Your task to perform on an android device: uninstall "Chime – Mobile Banking" Image 0: 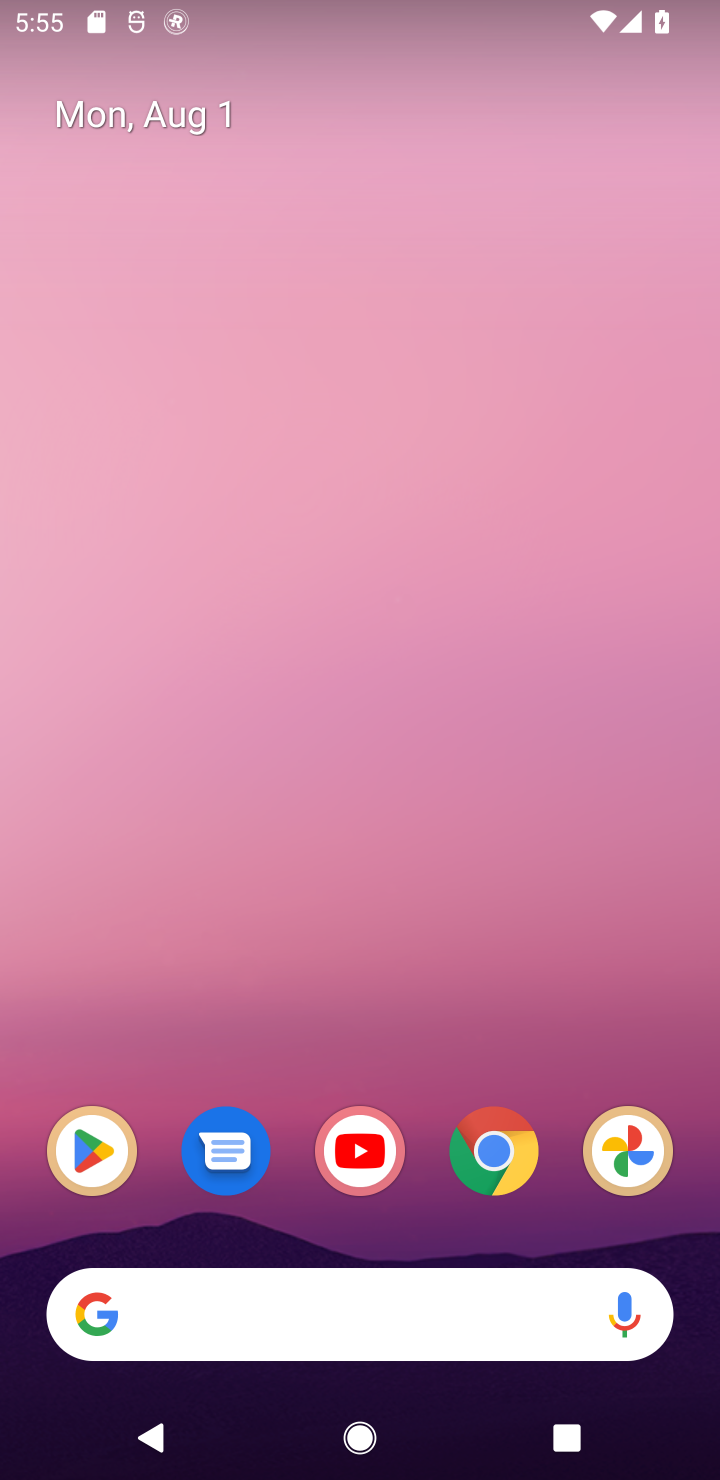
Step 0: click (100, 1167)
Your task to perform on an android device: uninstall "Chime – Mobile Banking" Image 1: 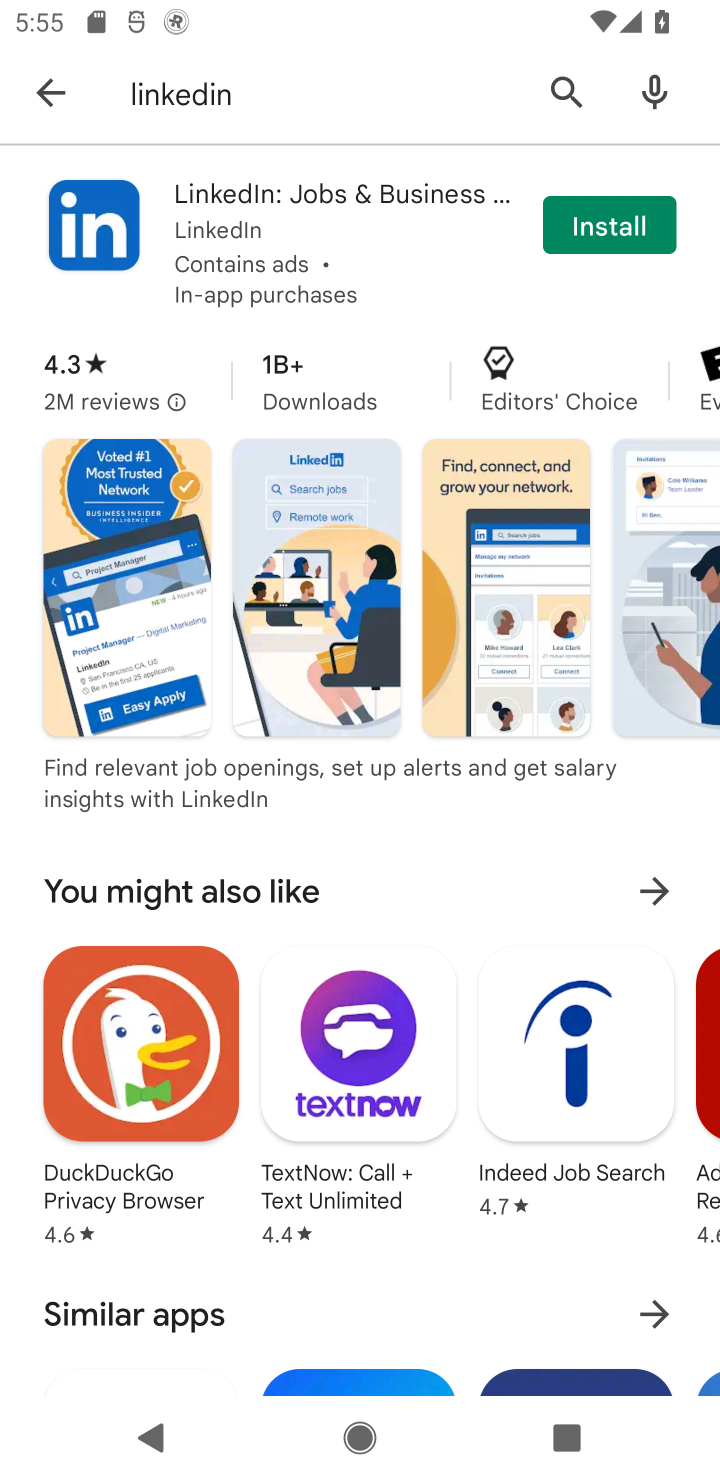
Step 1: click (576, 69)
Your task to perform on an android device: uninstall "Chime – Mobile Banking" Image 2: 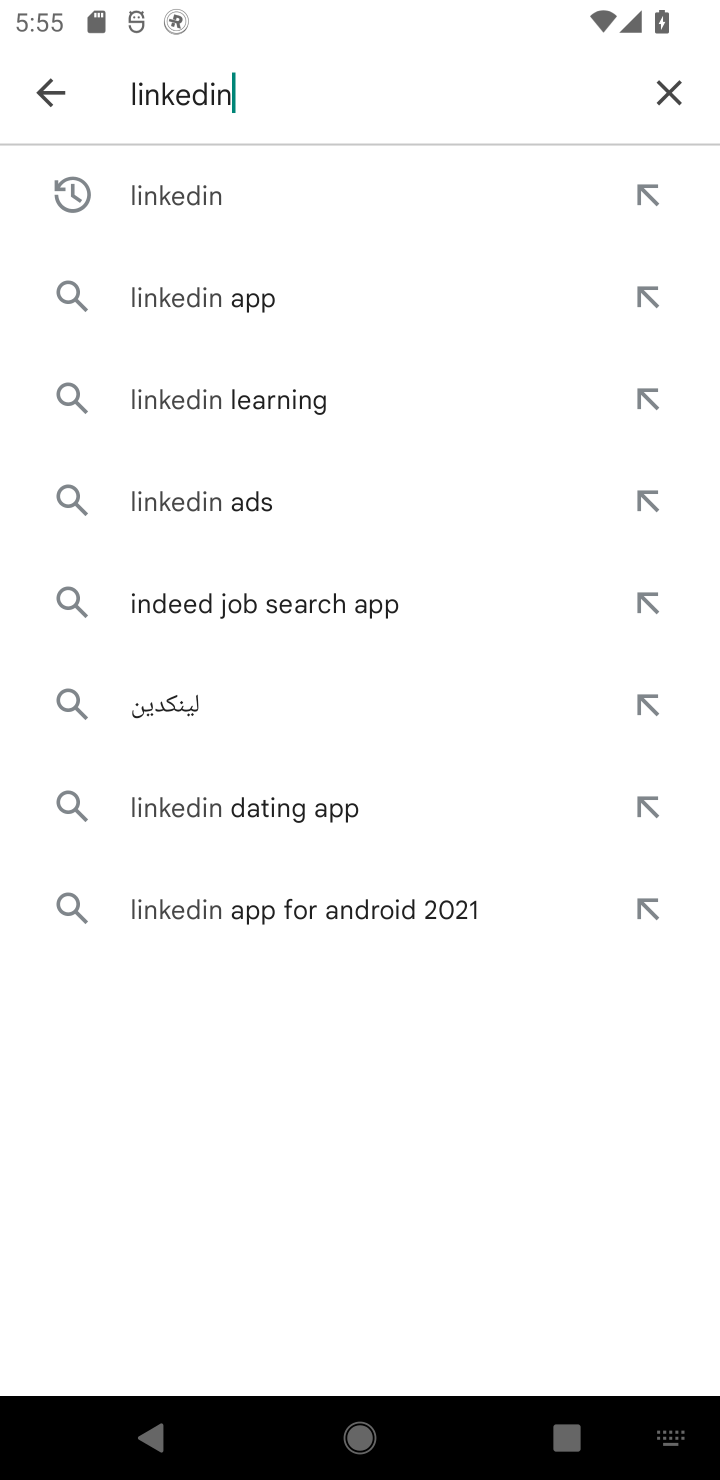
Step 2: click (656, 96)
Your task to perform on an android device: uninstall "Chime – Mobile Banking" Image 3: 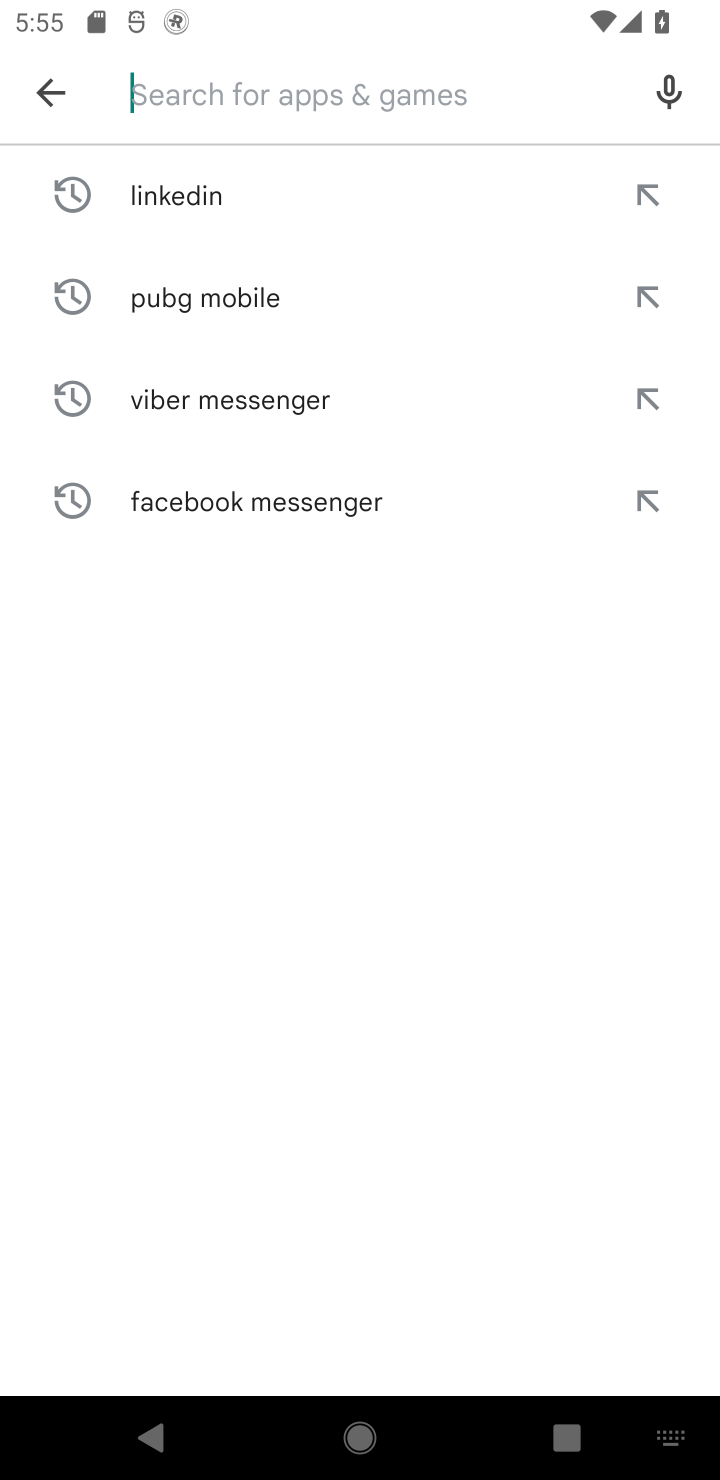
Step 3: type "Chime  Mobile Banking"
Your task to perform on an android device: uninstall "Chime – Mobile Banking" Image 4: 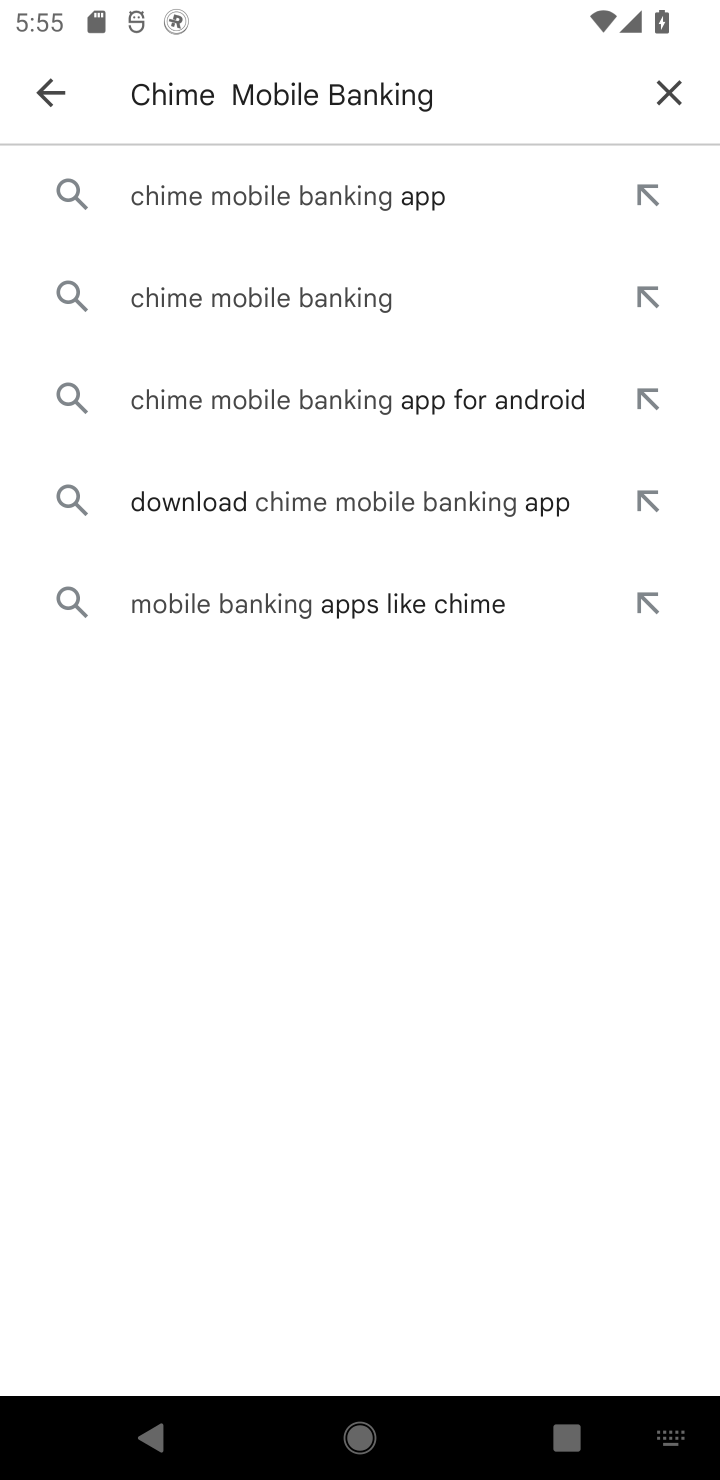
Step 4: click (311, 193)
Your task to perform on an android device: uninstall "Chime – Mobile Banking" Image 5: 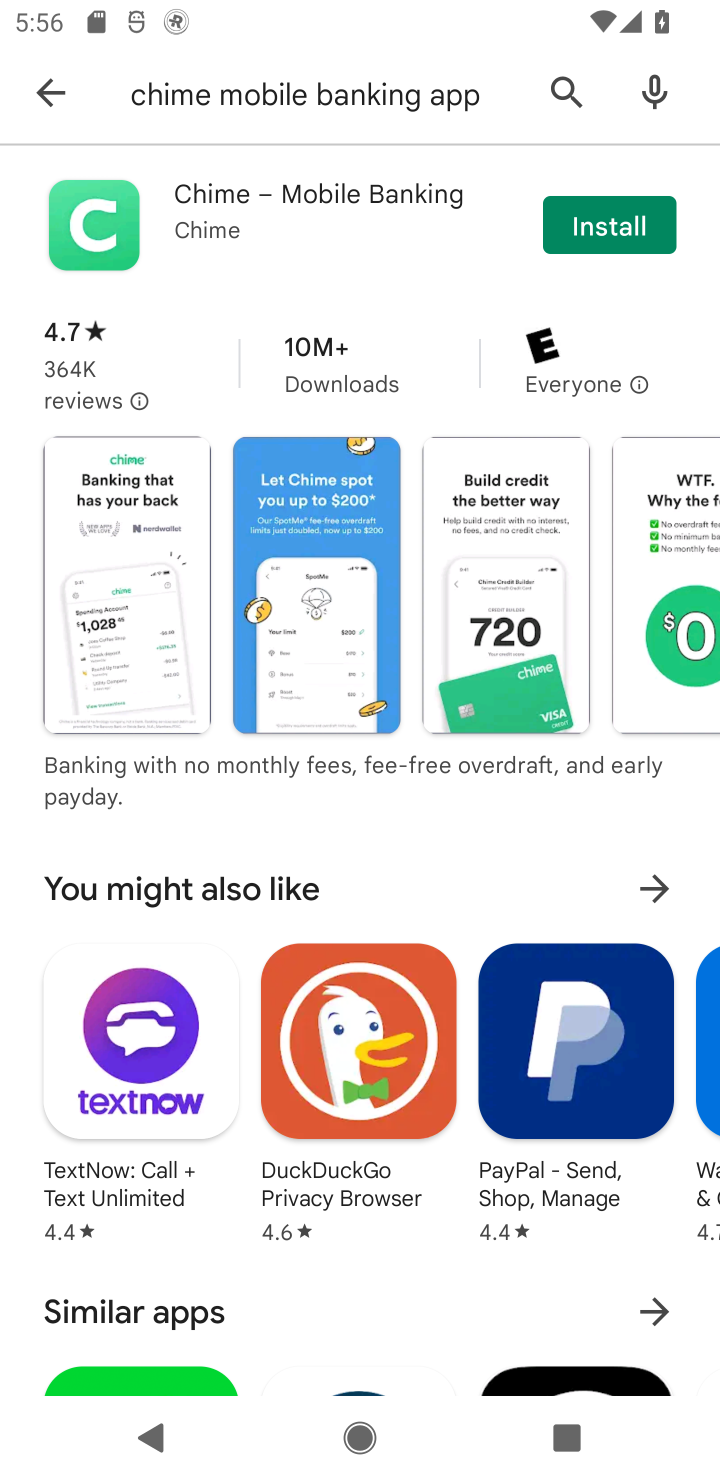
Step 5: click (271, 189)
Your task to perform on an android device: uninstall "Chime – Mobile Banking" Image 6: 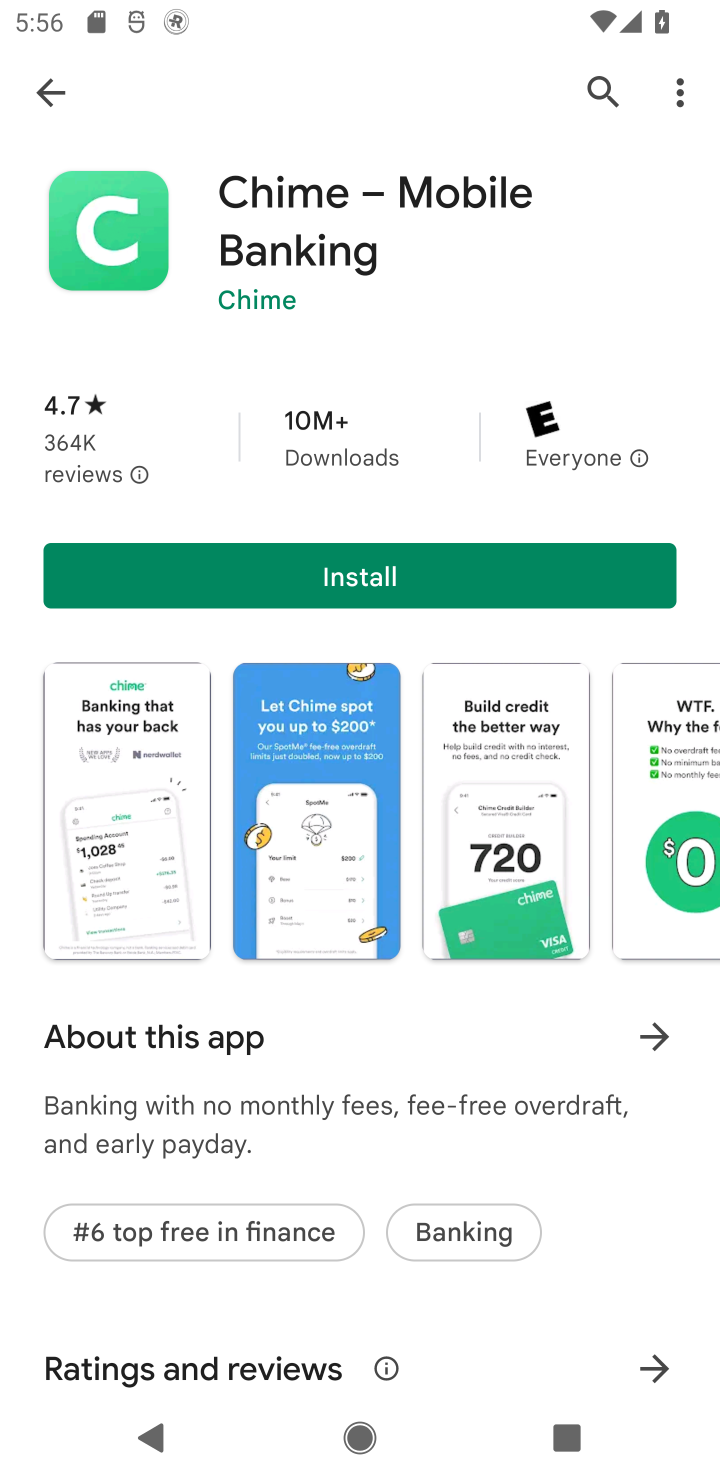
Step 6: task complete